Your task to perform on an android device: Show me recent news Image 0: 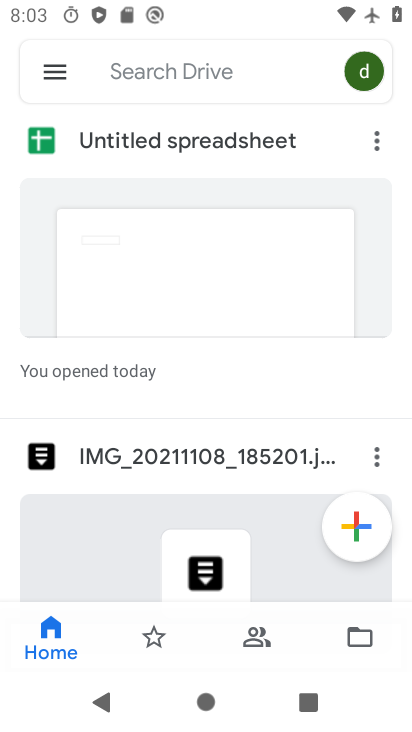
Step 0: press home button
Your task to perform on an android device: Show me recent news Image 1: 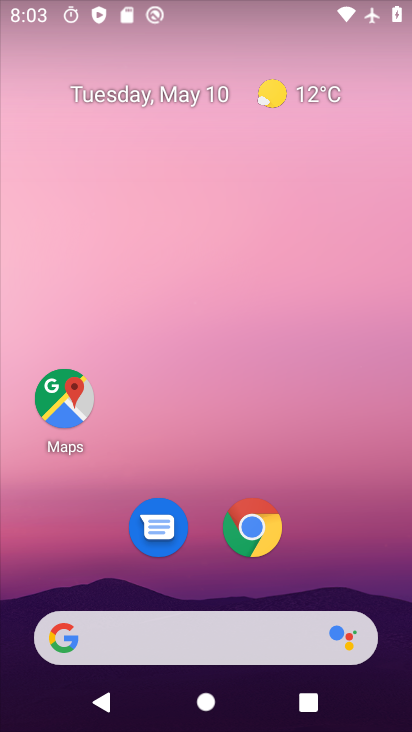
Step 1: click (265, 530)
Your task to perform on an android device: Show me recent news Image 2: 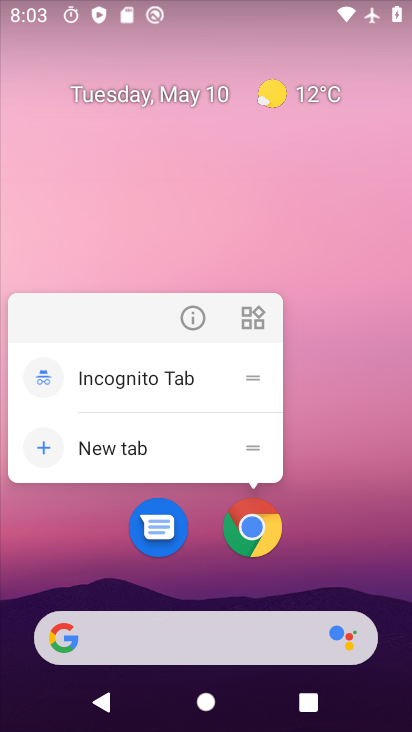
Step 2: click (255, 539)
Your task to perform on an android device: Show me recent news Image 3: 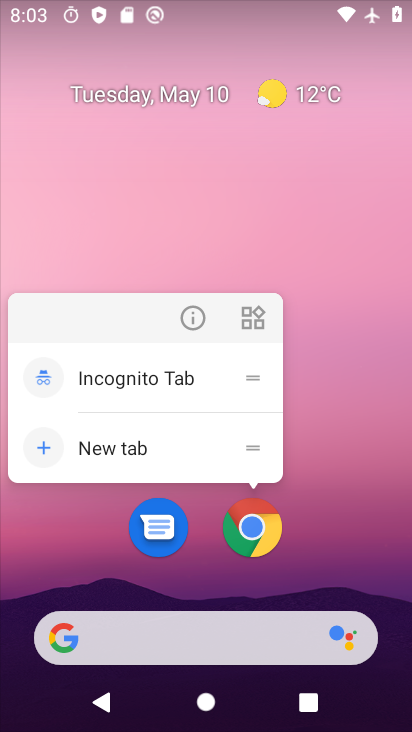
Step 3: click (255, 539)
Your task to perform on an android device: Show me recent news Image 4: 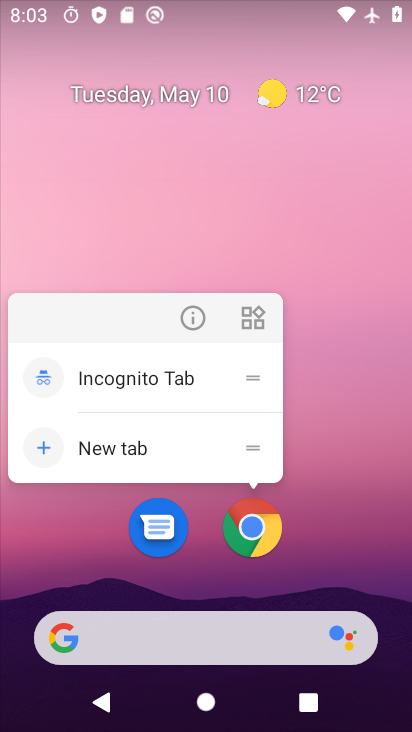
Step 4: click (277, 533)
Your task to perform on an android device: Show me recent news Image 5: 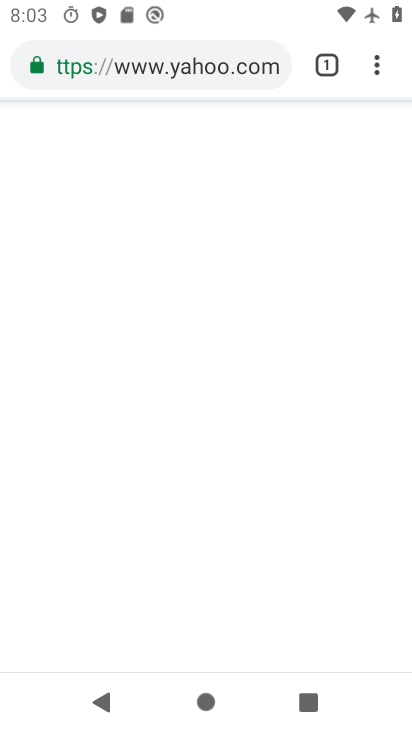
Step 5: click (213, 60)
Your task to perform on an android device: Show me recent news Image 6: 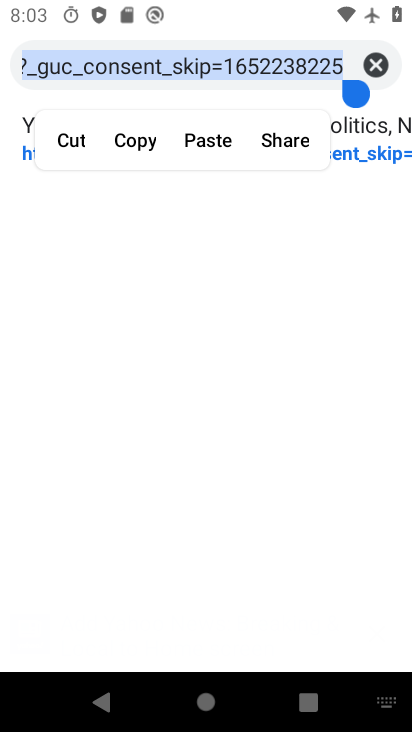
Step 6: type "recent news"
Your task to perform on an android device: Show me recent news Image 7: 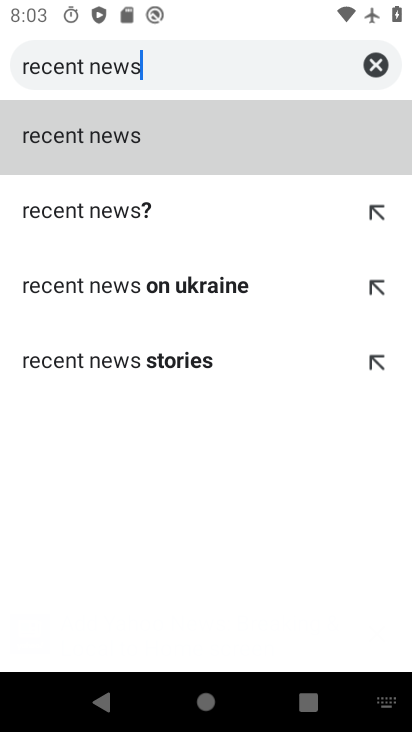
Step 7: click (124, 146)
Your task to perform on an android device: Show me recent news Image 8: 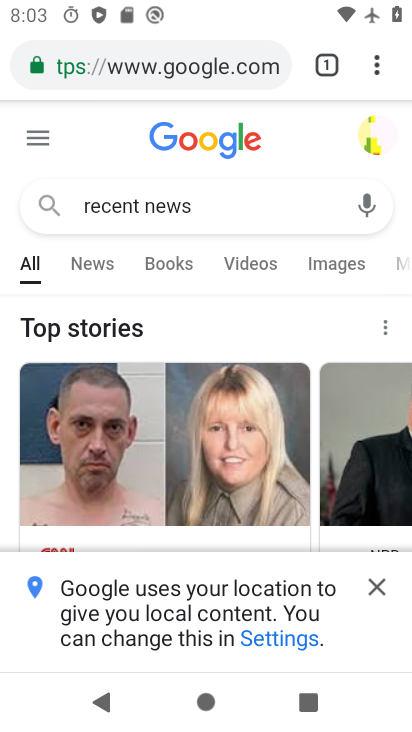
Step 8: task complete